Your task to perform on an android device: see sites visited before in the chrome app Image 0: 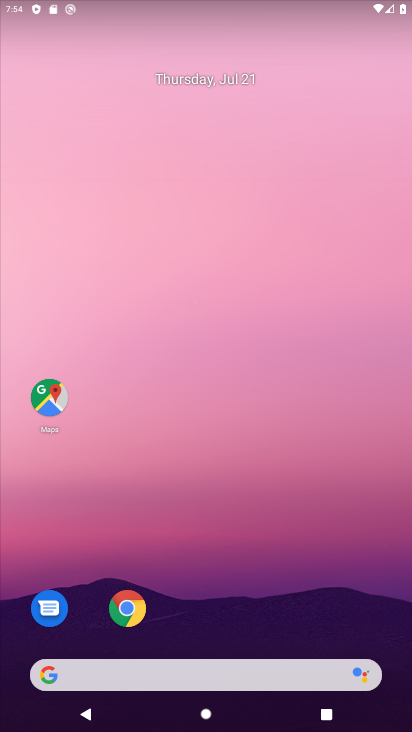
Step 0: click (124, 601)
Your task to perform on an android device: see sites visited before in the chrome app Image 1: 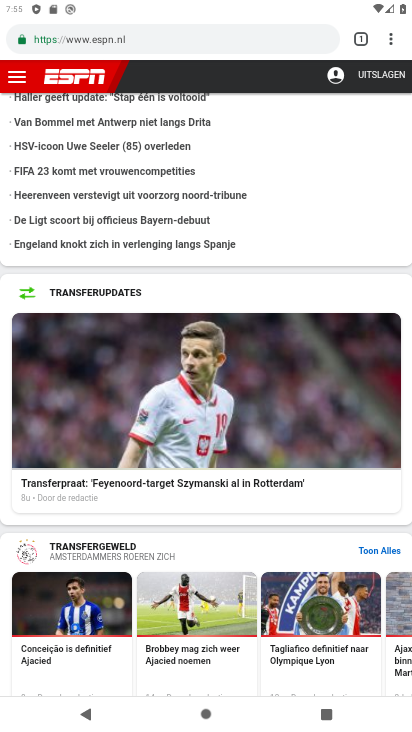
Step 1: click (388, 33)
Your task to perform on an android device: see sites visited before in the chrome app Image 2: 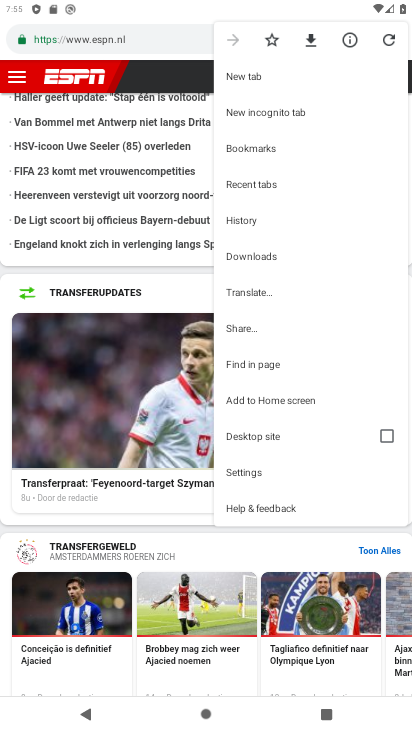
Step 2: click (261, 218)
Your task to perform on an android device: see sites visited before in the chrome app Image 3: 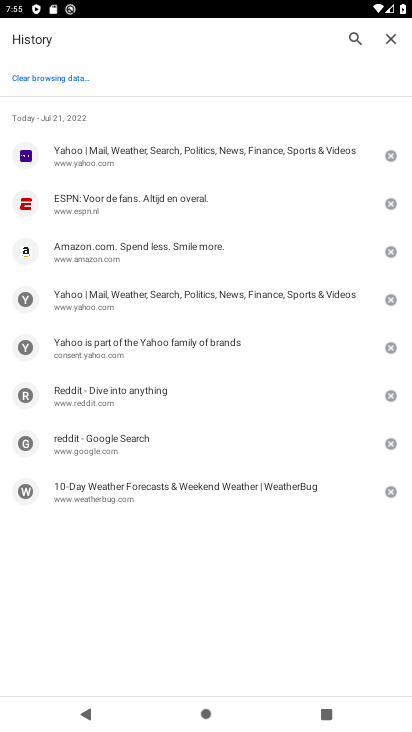
Step 3: task complete